Your task to perform on an android device: Search for sushi restaurants on Maps Image 0: 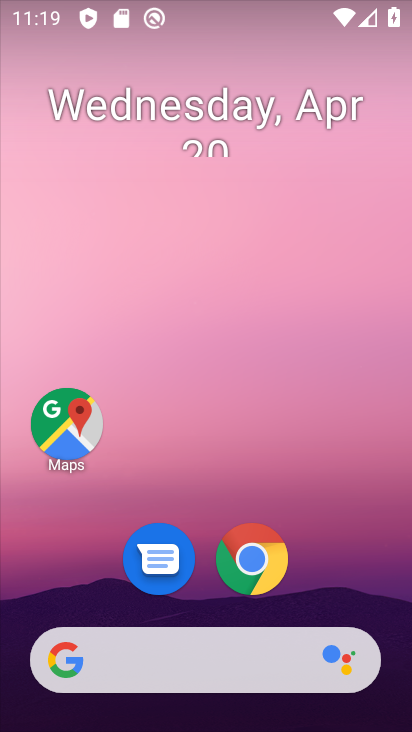
Step 0: click (77, 429)
Your task to perform on an android device: Search for sushi restaurants on Maps Image 1: 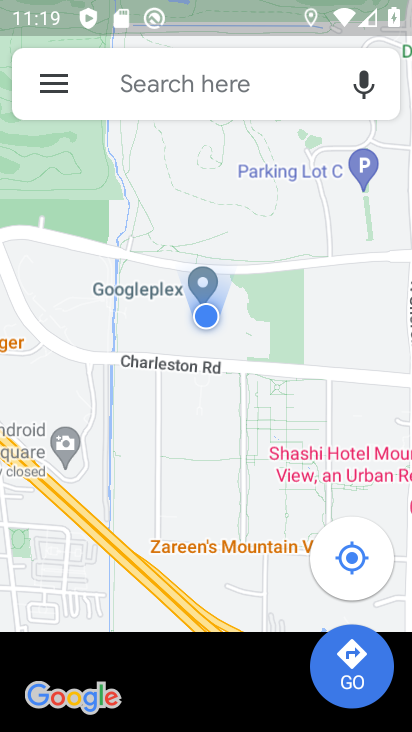
Step 1: click (230, 85)
Your task to perform on an android device: Search for sushi restaurants on Maps Image 2: 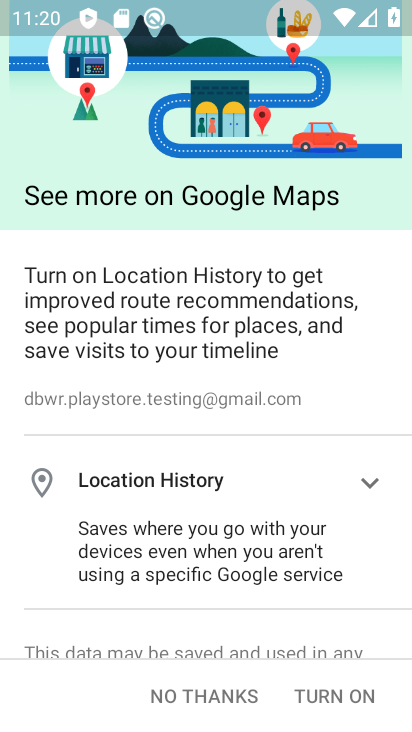
Step 2: click (210, 701)
Your task to perform on an android device: Search for sushi restaurants on Maps Image 3: 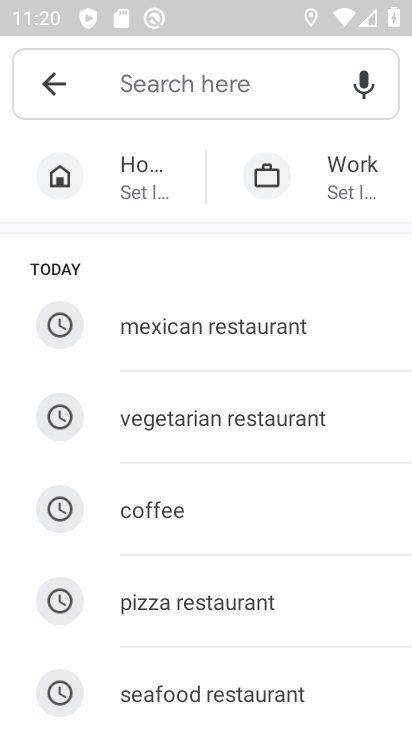
Step 3: click (204, 78)
Your task to perform on an android device: Search for sushi restaurants on Maps Image 4: 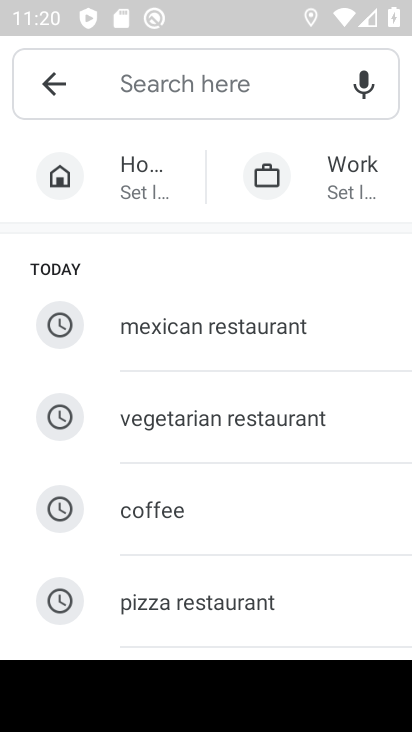
Step 4: type "sushi restaurants"
Your task to perform on an android device: Search for sushi restaurants on Maps Image 5: 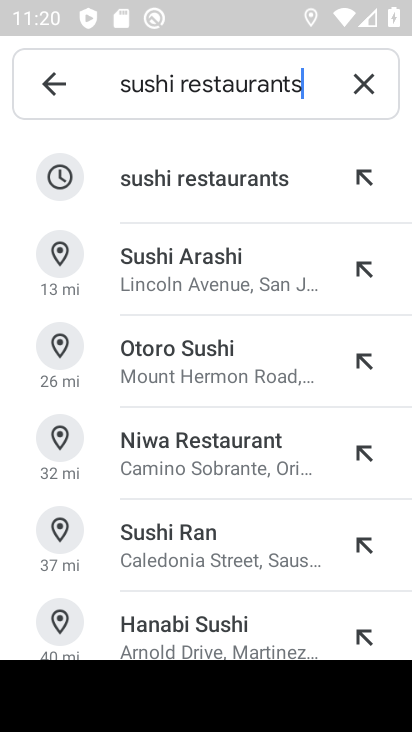
Step 5: click (213, 176)
Your task to perform on an android device: Search for sushi restaurants on Maps Image 6: 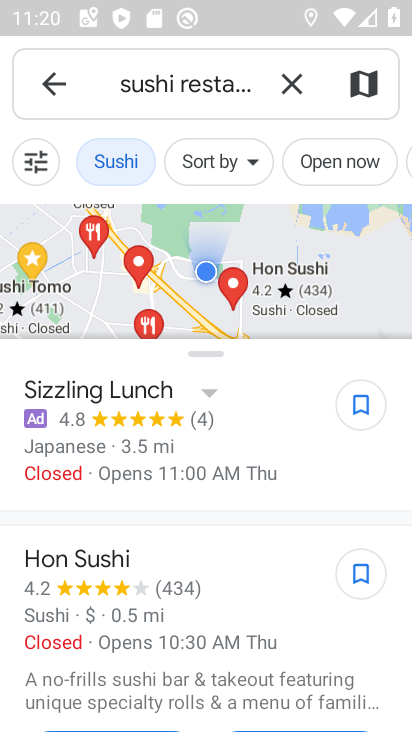
Step 6: task complete